Your task to perform on an android device: Open location settings Image 0: 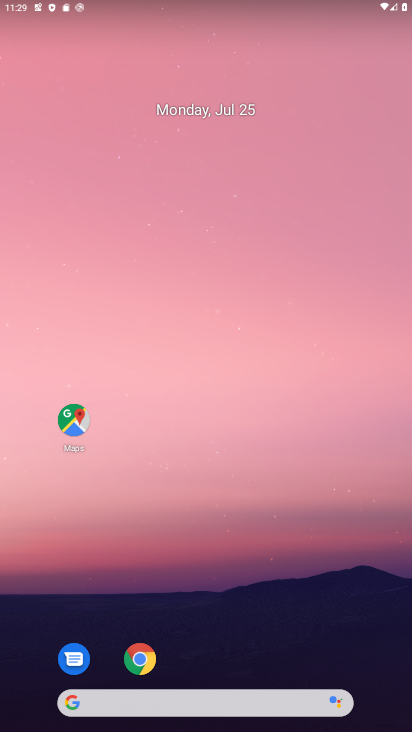
Step 0: click (236, 31)
Your task to perform on an android device: Open location settings Image 1: 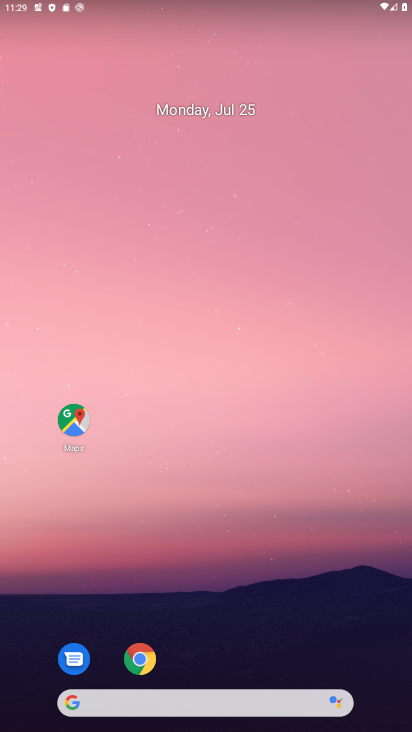
Step 1: drag from (49, 614) to (181, 21)
Your task to perform on an android device: Open location settings Image 2: 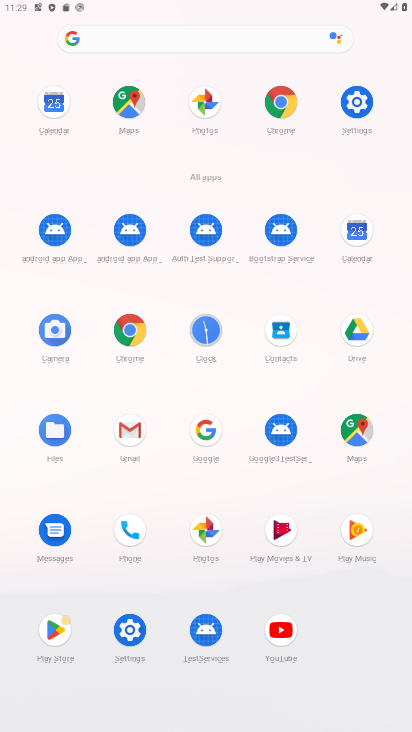
Step 2: click (136, 640)
Your task to perform on an android device: Open location settings Image 3: 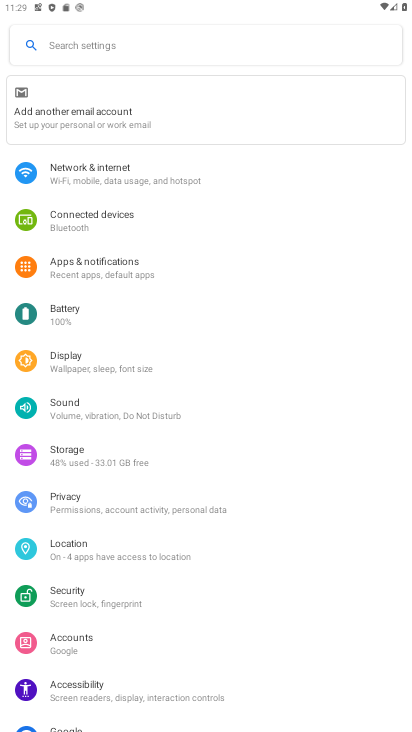
Step 3: click (96, 547)
Your task to perform on an android device: Open location settings Image 4: 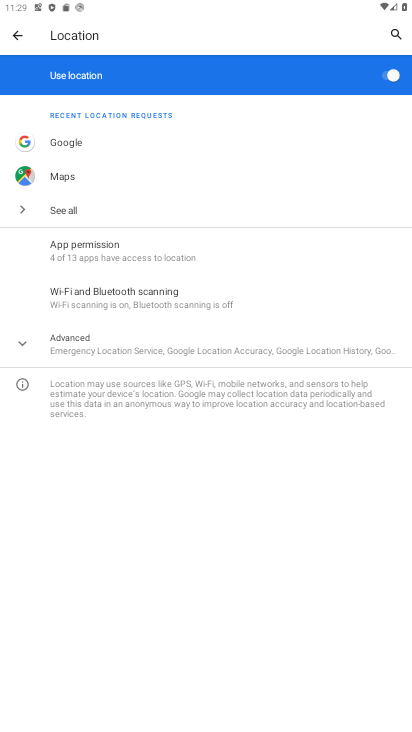
Step 4: task complete